Your task to perform on an android device: toggle show notifications on the lock screen Image 0: 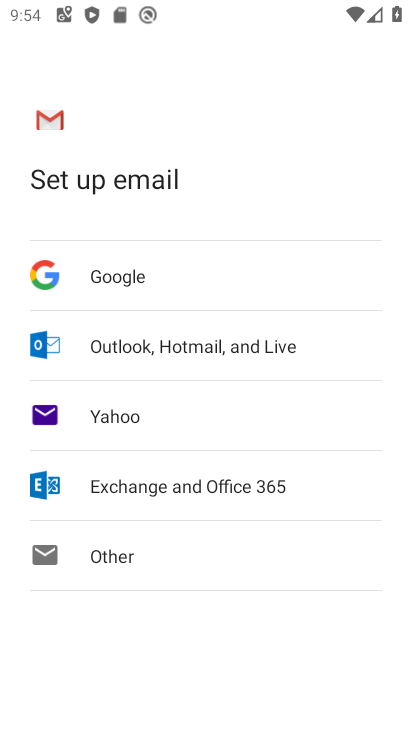
Step 0: press home button
Your task to perform on an android device: toggle show notifications on the lock screen Image 1: 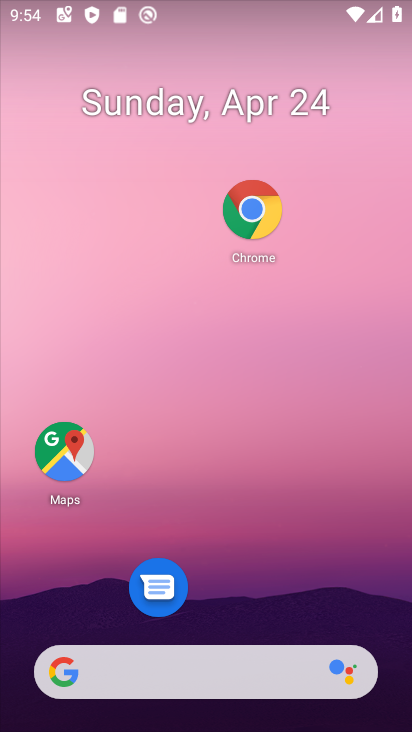
Step 1: drag from (213, 628) to (283, 210)
Your task to perform on an android device: toggle show notifications on the lock screen Image 2: 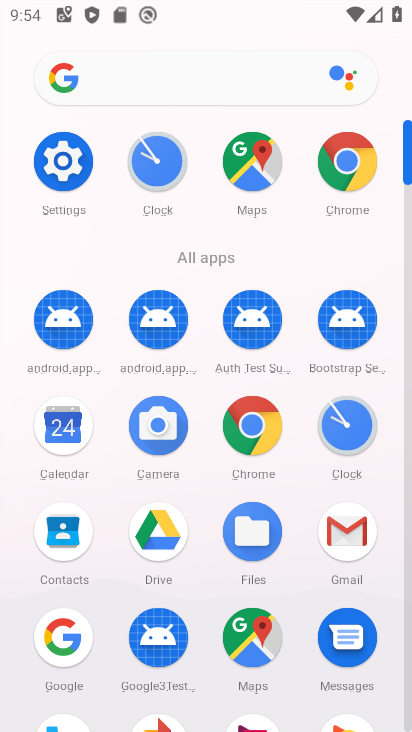
Step 2: click (63, 154)
Your task to perform on an android device: toggle show notifications on the lock screen Image 3: 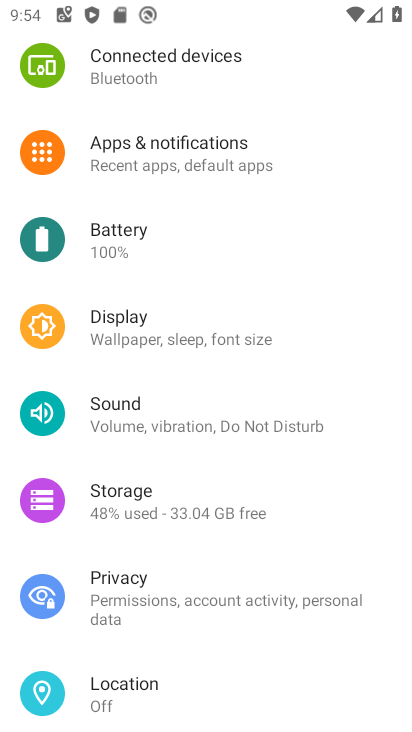
Step 3: click (247, 146)
Your task to perform on an android device: toggle show notifications on the lock screen Image 4: 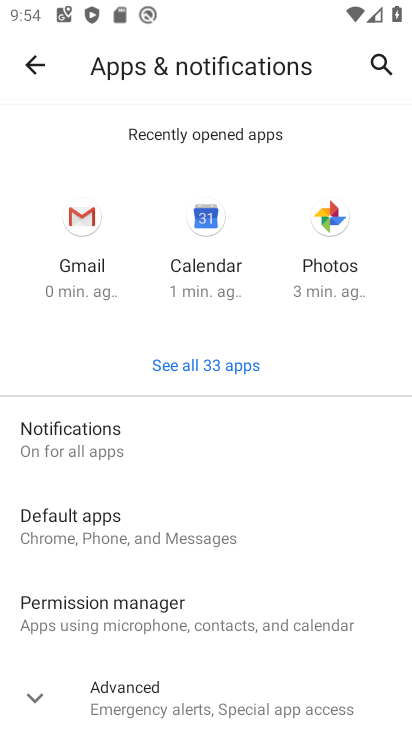
Step 4: click (132, 438)
Your task to perform on an android device: toggle show notifications on the lock screen Image 5: 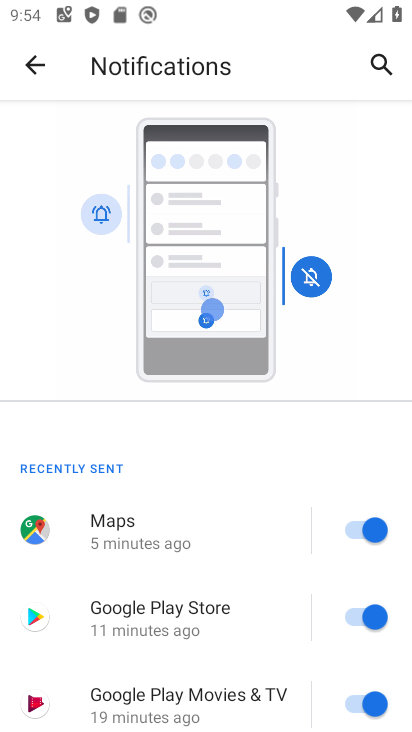
Step 5: drag from (250, 612) to (281, 209)
Your task to perform on an android device: toggle show notifications on the lock screen Image 6: 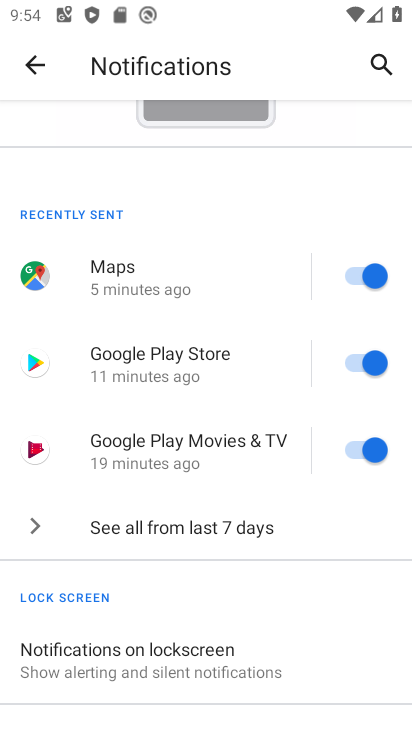
Step 6: click (243, 660)
Your task to perform on an android device: toggle show notifications on the lock screen Image 7: 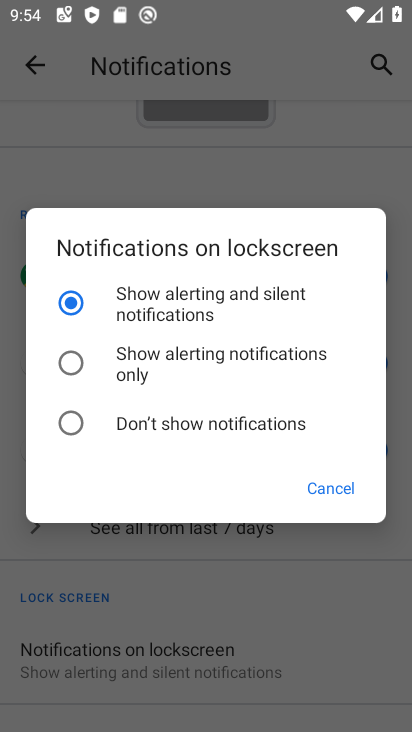
Step 7: click (74, 359)
Your task to perform on an android device: toggle show notifications on the lock screen Image 8: 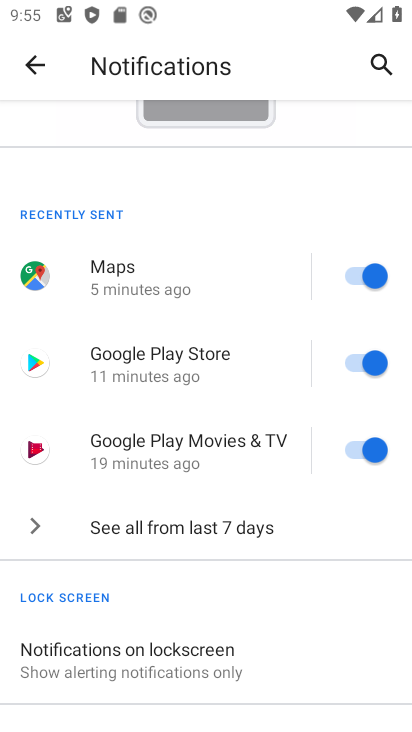
Step 8: task complete